Your task to perform on an android device: Search for vintage wall art on Etsy. Image 0: 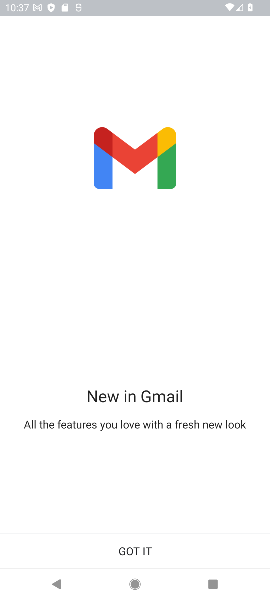
Step 0: press home button
Your task to perform on an android device: Search for vintage wall art on Etsy. Image 1: 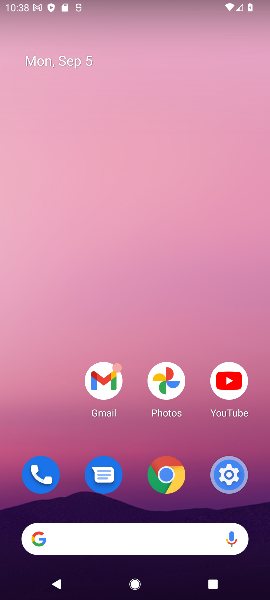
Step 1: click (92, 543)
Your task to perform on an android device: Search for vintage wall art on Etsy. Image 2: 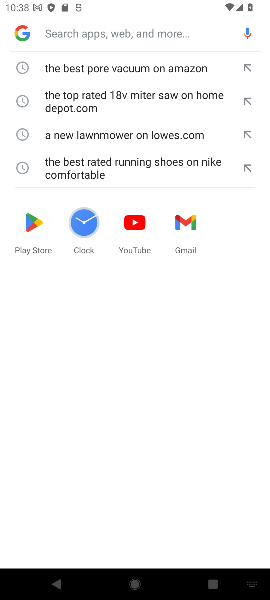
Step 2: type "vintage wall art on Etsy."
Your task to perform on an android device: Search for vintage wall art on Etsy. Image 3: 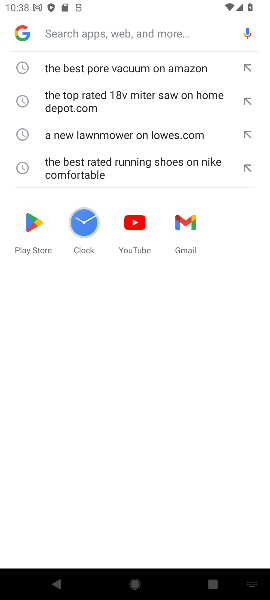
Step 3: click (120, 34)
Your task to perform on an android device: Search for vintage wall art on Etsy. Image 4: 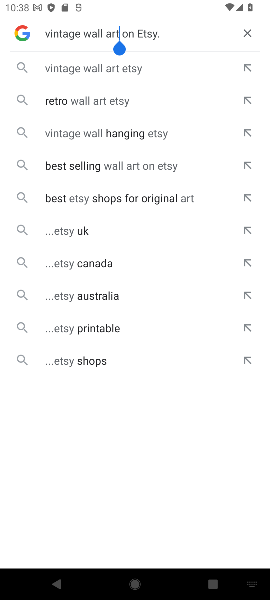
Step 4: click (120, 34)
Your task to perform on an android device: Search for vintage wall art on Etsy. Image 5: 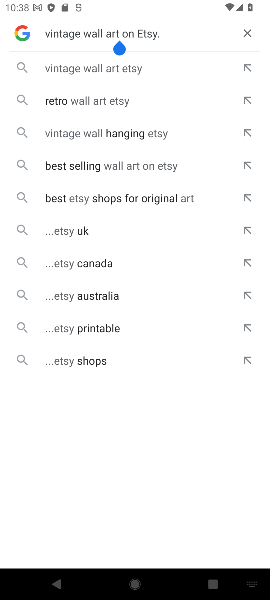
Step 5: click (163, 34)
Your task to perform on an android device: Search for vintage wall art on Etsy. Image 6: 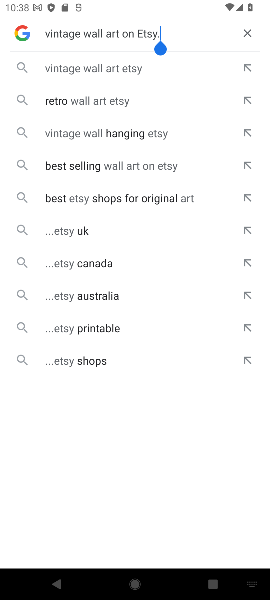
Step 6: click (119, 66)
Your task to perform on an android device: Search for vintage wall art on Etsy. Image 7: 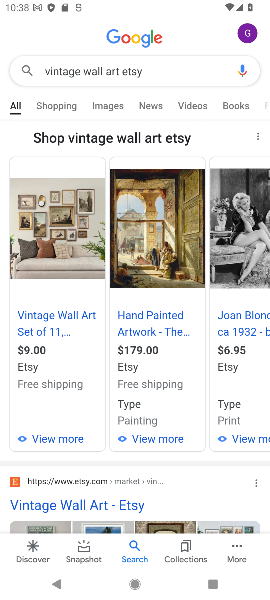
Step 7: task complete